Your task to perform on an android device: Show me recent news Image 0: 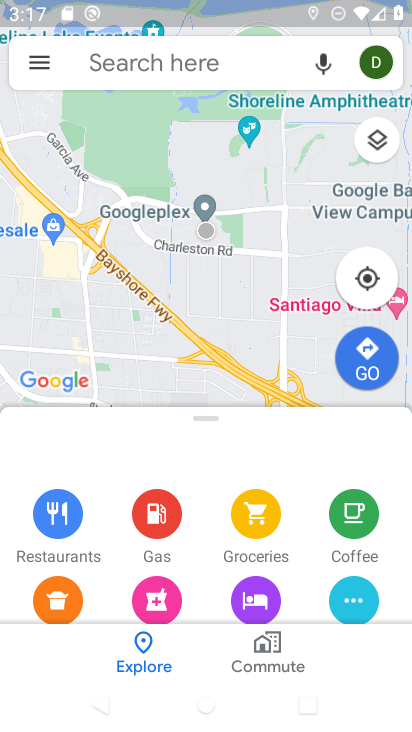
Step 0: drag from (215, 598) to (255, 267)
Your task to perform on an android device: Show me recent news Image 1: 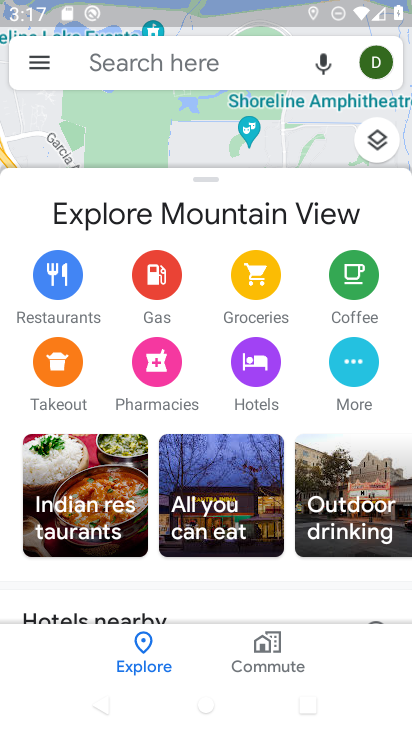
Step 1: task complete